Your task to perform on an android device: turn off notifications in google photos Image 0: 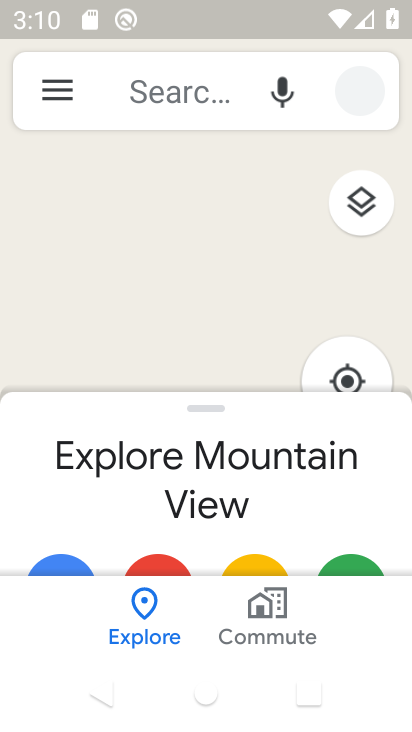
Step 0: press home button
Your task to perform on an android device: turn off notifications in google photos Image 1: 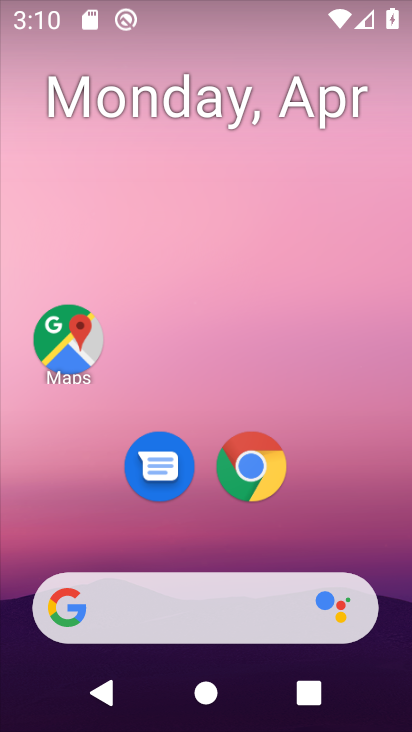
Step 1: drag from (244, 566) to (314, 72)
Your task to perform on an android device: turn off notifications in google photos Image 2: 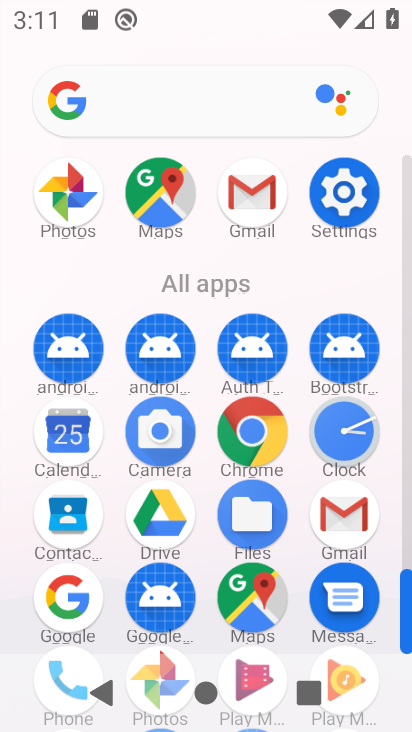
Step 2: click (68, 206)
Your task to perform on an android device: turn off notifications in google photos Image 3: 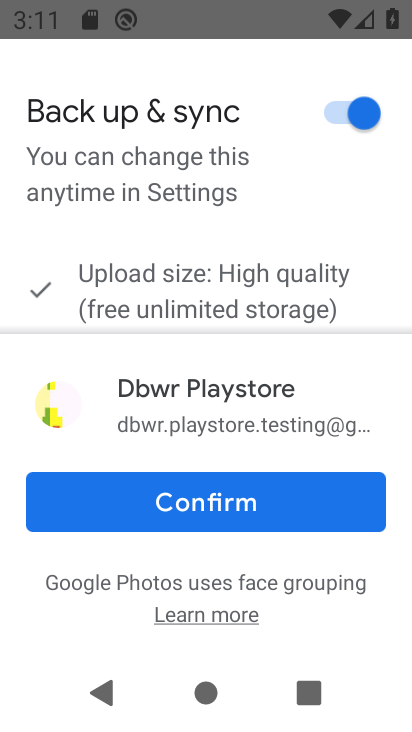
Step 3: click (156, 501)
Your task to perform on an android device: turn off notifications in google photos Image 4: 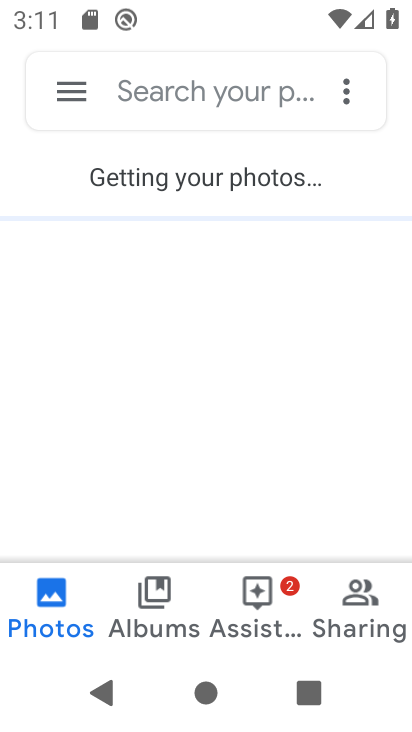
Step 4: click (348, 108)
Your task to perform on an android device: turn off notifications in google photos Image 5: 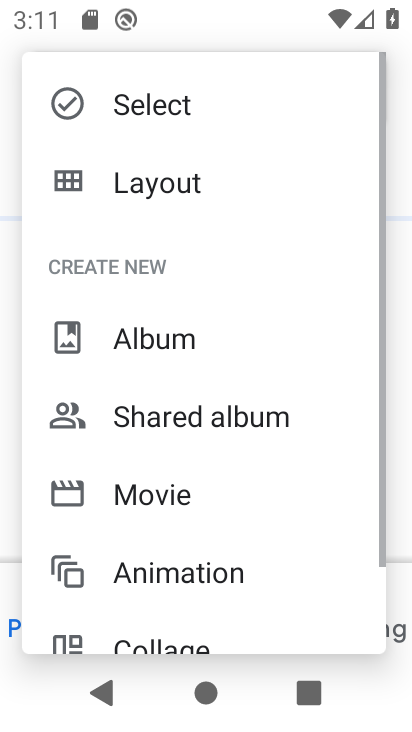
Step 5: drag from (223, 413) to (255, 37)
Your task to perform on an android device: turn off notifications in google photos Image 6: 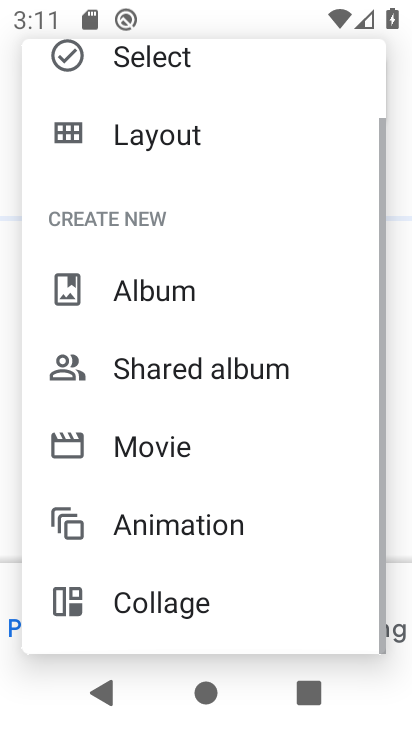
Step 6: click (111, 696)
Your task to perform on an android device: turn off notifications in google photos Image 7: 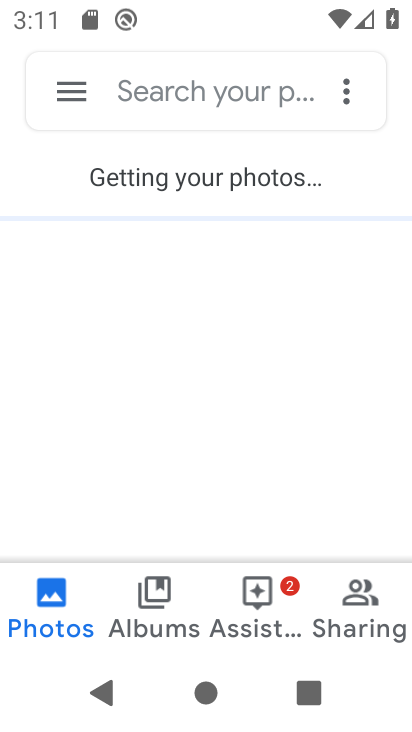
Step 7: click (63, 101)
Your task to perform on an android device: turn off notifications in google photos Image 8: 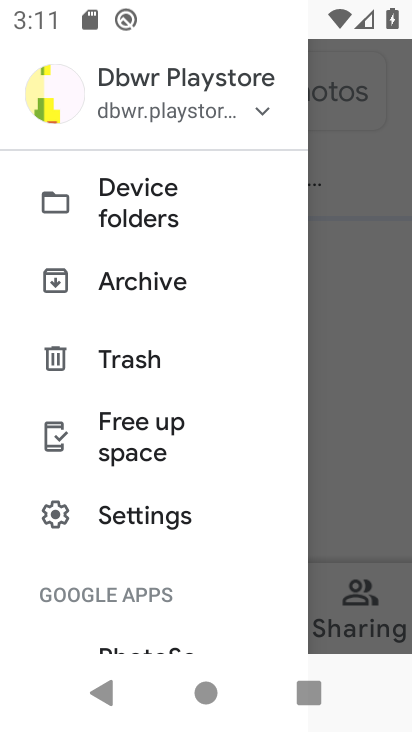
Step 8: click (158, 517)
Your task to perform on an android device: turn off notifications in google photos Image 9: 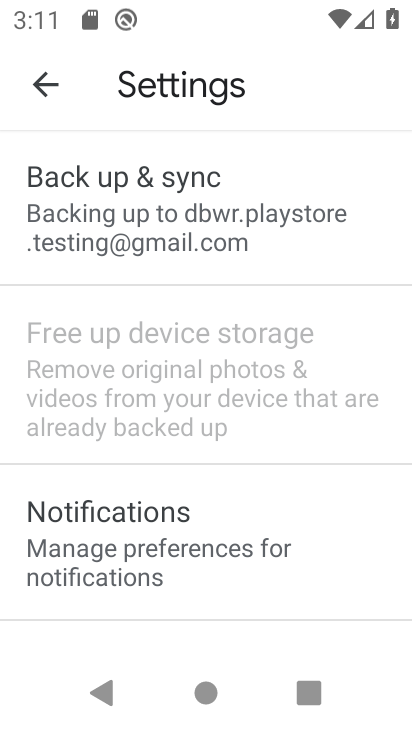
Step 9: drag from (190, 530) to (197, 306)
Your task to perform on an android device: turn off notifications in google photos Image 10: 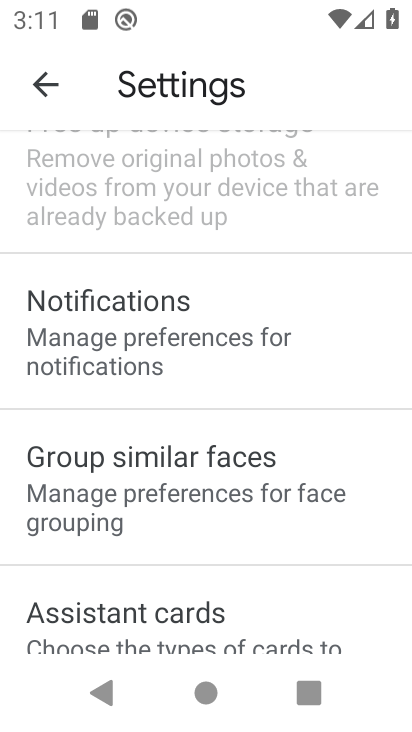
Step 10: click (186, 340)
Your task to perform on an android device: turn off notifications in google photos Image 11: 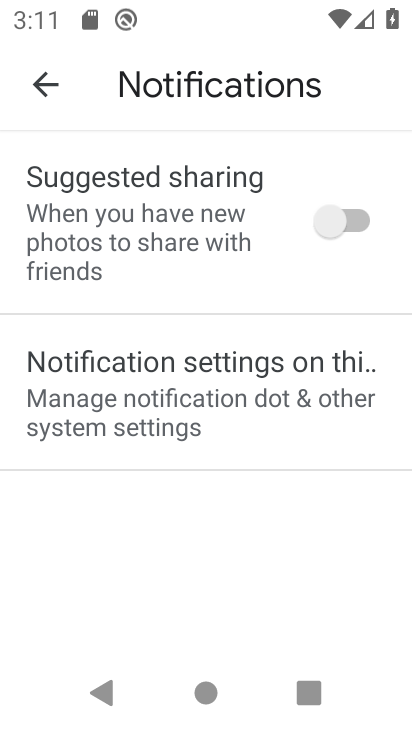
Step 11: click (199, 377)
Your task to perform on an android device: turn off notifications in google photos Image 12: 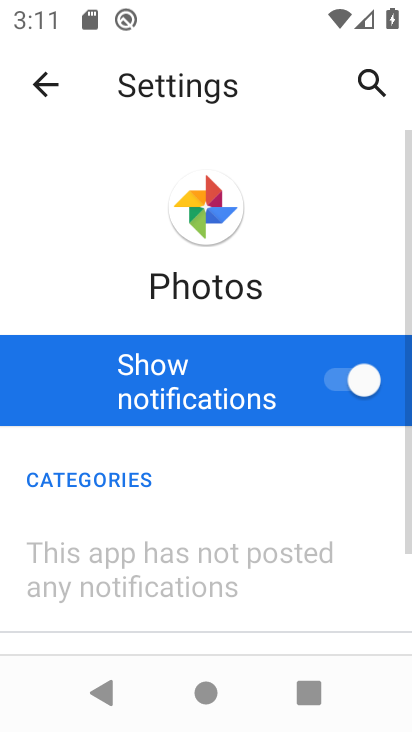
Step 12: click (362, 405)
Your task to perform on an android device: turn off notifications in google photos Image 13: 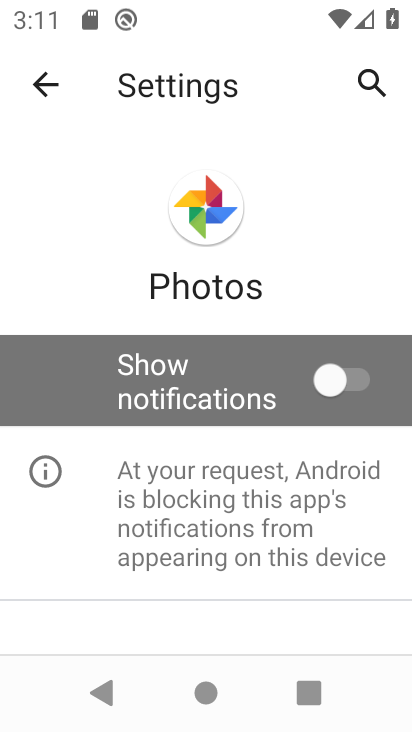
Step 13: task complete